Your task to perform on an android device: What's the weather? Image 0: 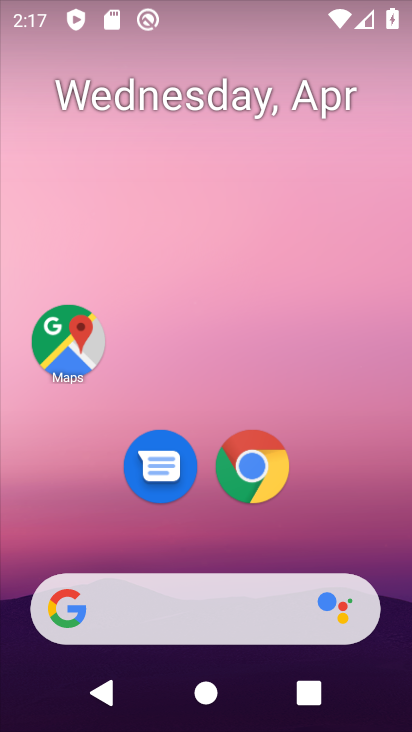
Step 0: drag from (277, 544) to (317, 204)
Your task to perform on an android device: What's the weather? Image 1: 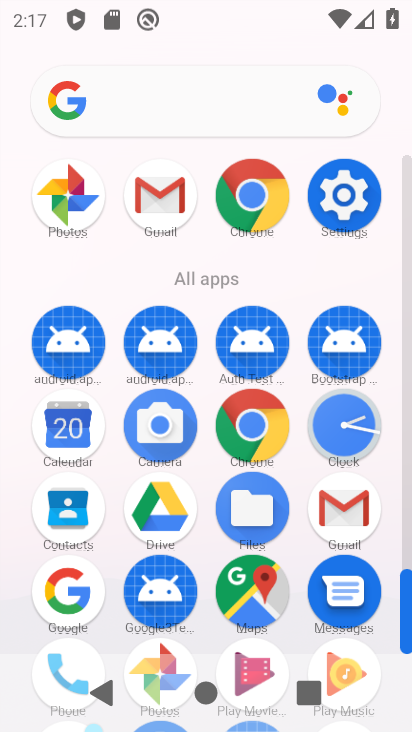
Step 1: click (256, 190)
Your task to perform on an android device: What's the weather? Image 2: 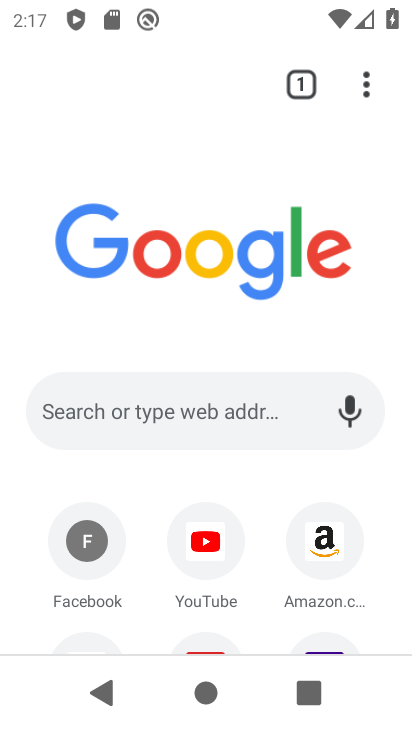
Step 2: click (207, 409)
Your task to perform on an android device: What's the weather? Image 3: 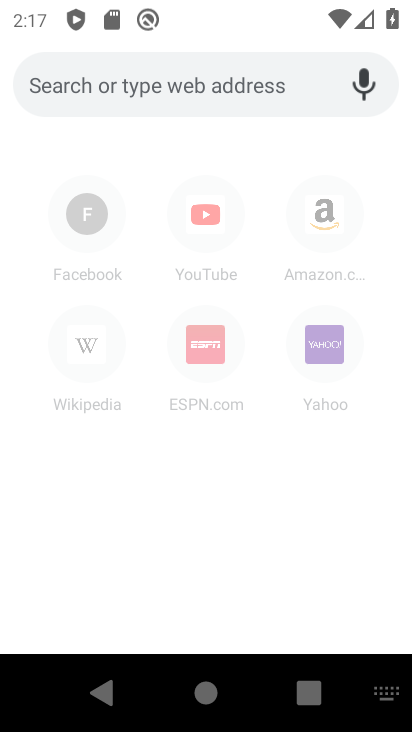
Step 3: type "What's the weather?"
Your task to perform on an android device: What's the weather? Image 4: 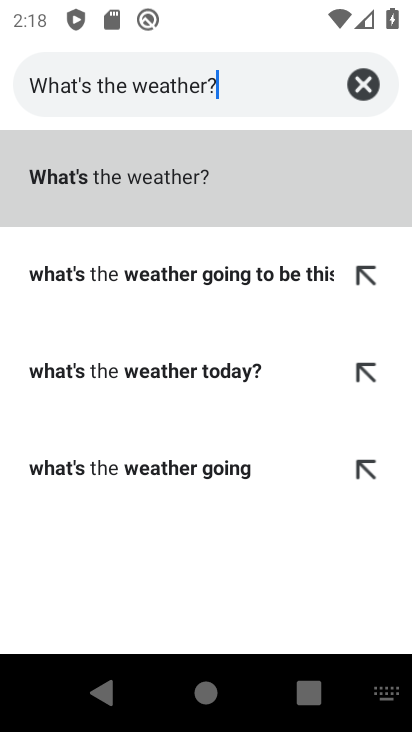
Step 4: click (214, 183)
Your task to perform on an android device: What's the weather? Image 5: 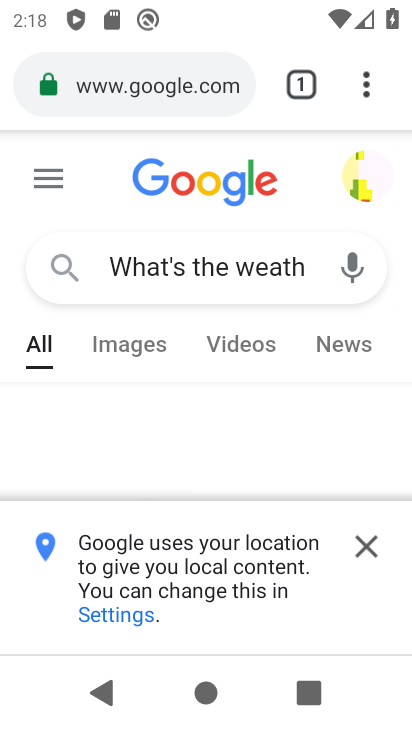
Step 5: click (371, 544)
Your task to perform on an android device: What's the weather? Image 6: 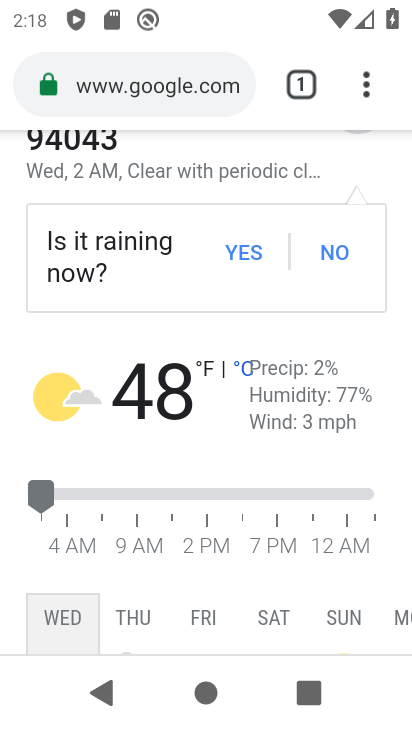
Step 6: task complete